Your task to perform on an android device: check the backup settings in the google photos Image 0: 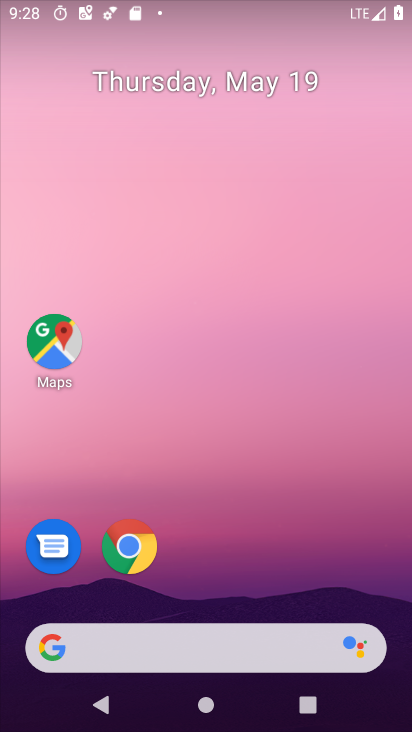
Step 0: drag from (273, 616) to (184, 219)
Your task to perform on an android device: check the backup settings in the google photos Image 1: 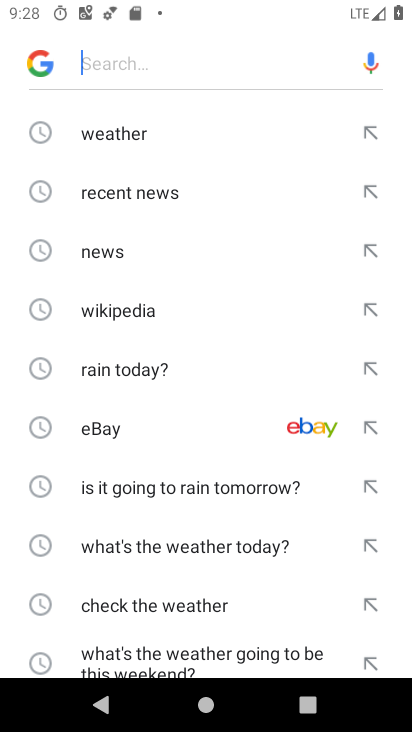
Step 1: press back button
Your task to perform on an android device: check the backup settings in the google photos Image 2: 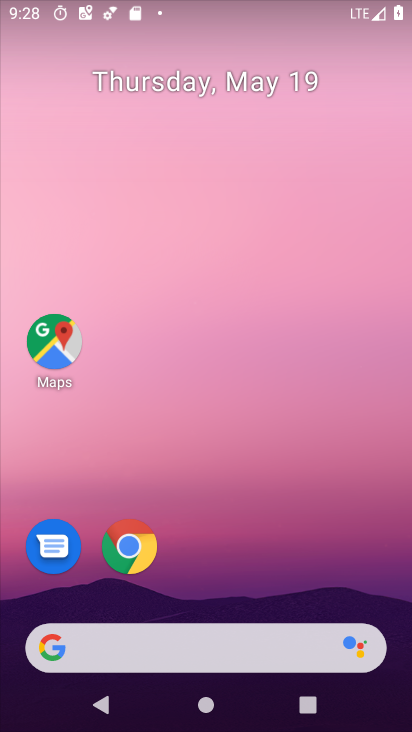
Step 2: drag from (269, 676) to (130, 89)
Your task to perform on an android device: check the backup settings in the google photos Image 3: 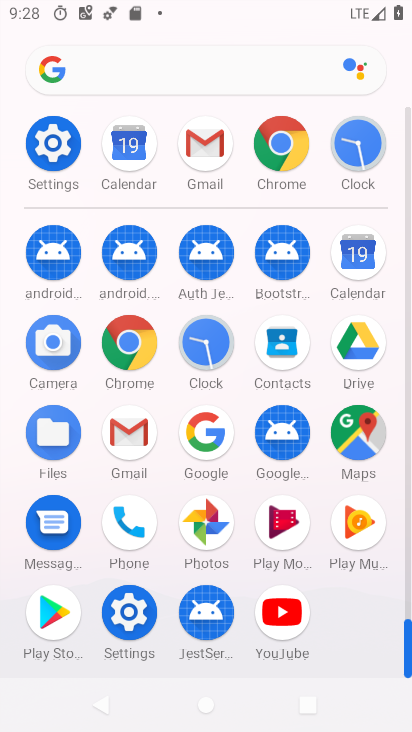
Step 3: click (211, 442)
Your task to perform on an android device: check the backup settings in the google photos Image 4: 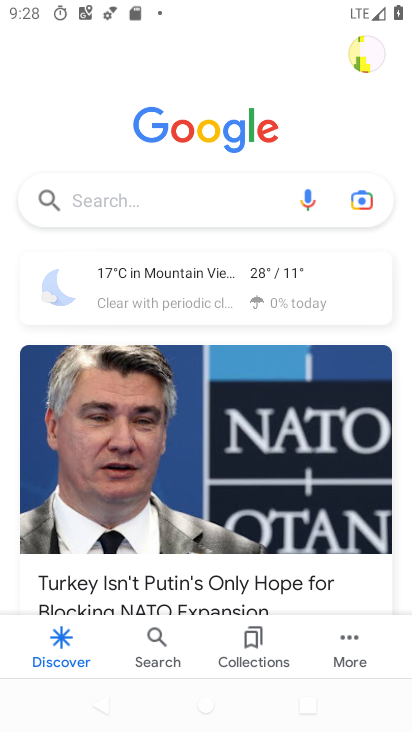
Step 4: press back button
Your task to perform on an android device: check the backup settings in the google photos Image 5: 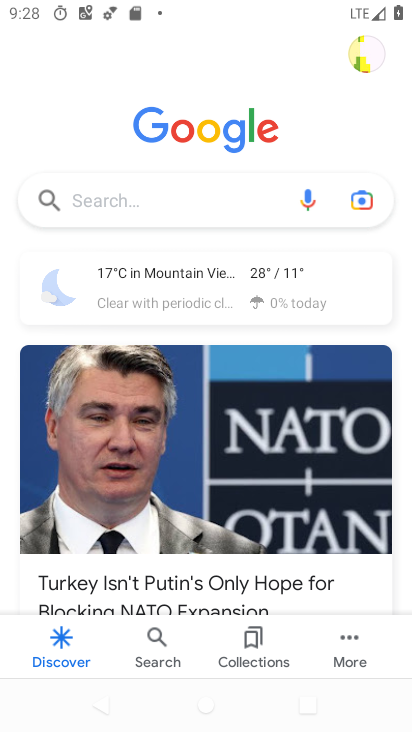
Step 5: press back button
Your task to perform on an android device: check the backup settings in the google photos Image 6: 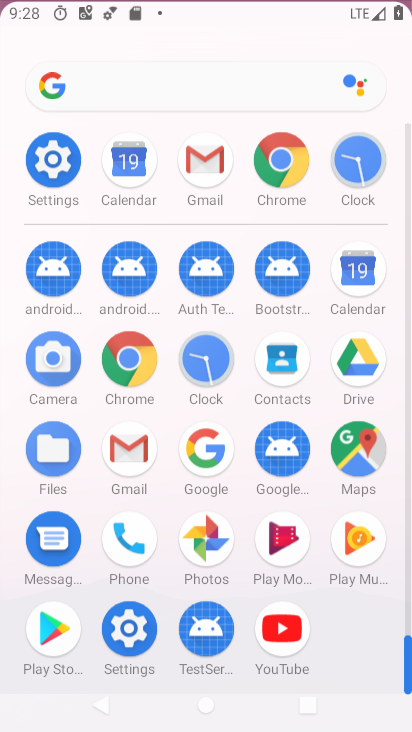
Step 6: press back button
Your task to perform on an android device: check the backup settings in the google photos Image 7: 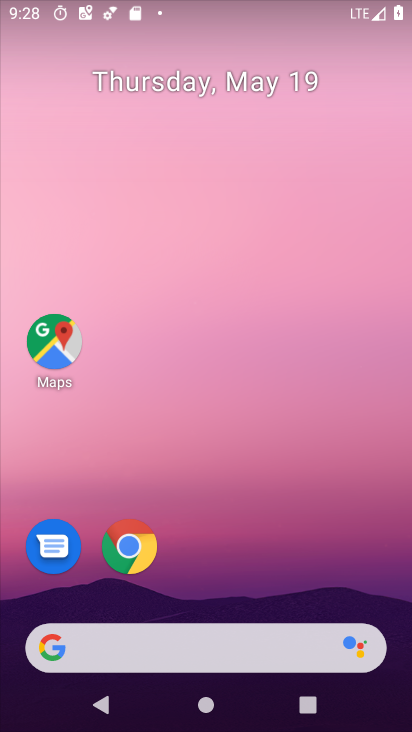
Step 7: drag from (332, 589) to (249, 138)
Your task to perform on an android device: check the backup settings in the google photos Image 8: 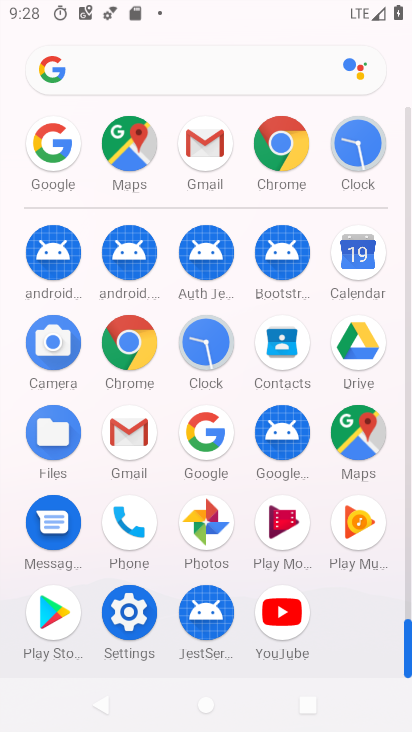
Step 8: click (204, 513)
Your task to perform on an android device: check the backup settings in the google photos Image 9: 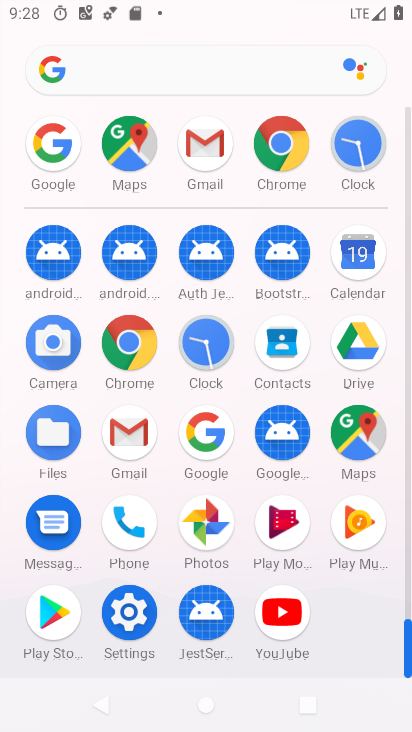
Step 9: click (205, 513)
Your task to perform on an android device: check the backup settings in the google photos Image 10: 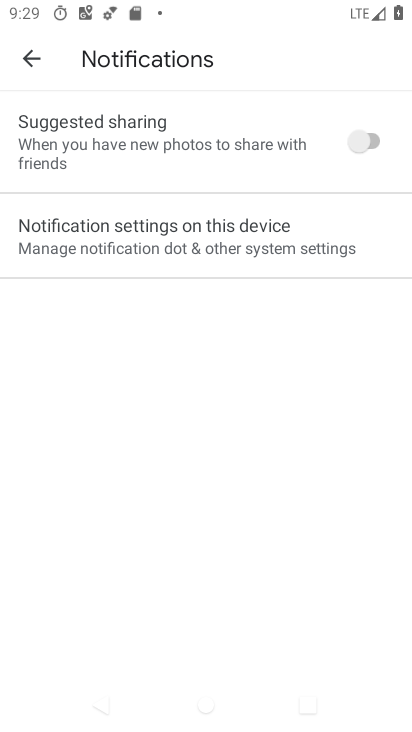
Step 10: click (127, 243)
Your task to perform on an android device: check the backup settings in the google photos Image 11: 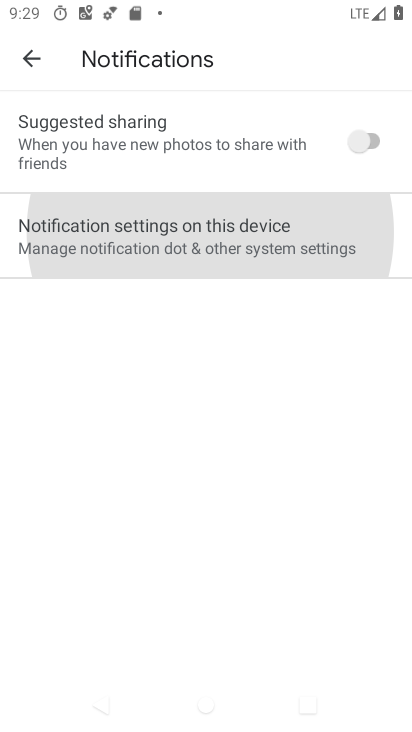
Step 11: click (127, 243)
Your task to perform on an android device: check the backup settings in the google photos Image 12: 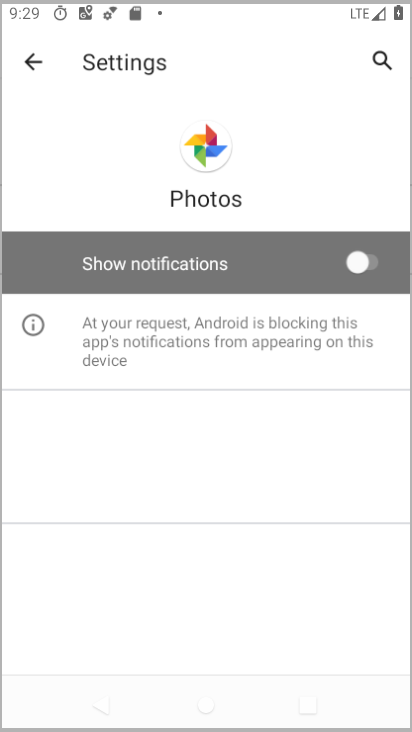
Step 12: click (127, 243)
Your task to perform on an android device: check the backup settings in the google photos Image 13: 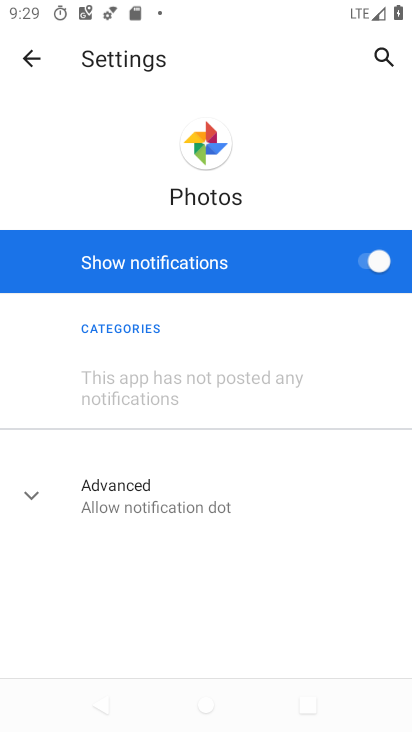
Step 13: click (32, 67)
Your task to perform on an android device: check the backup settings in the google photos Image 14: 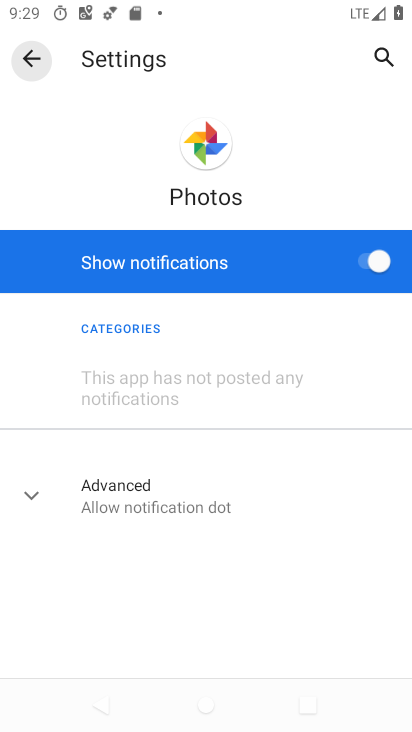
Step 14: click (32, 67)
Your task to perform on an android device: check the backup settings in the google photos Image 15: 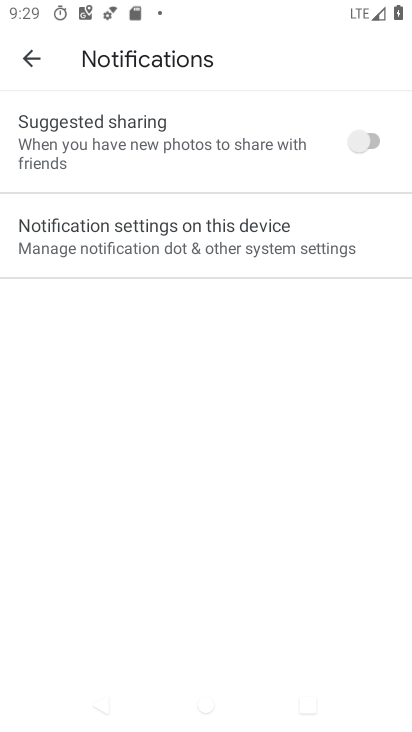
Step 15: click (32, 67)
Your task to perform on an android device: check the backup settings in the google photos Image 16: 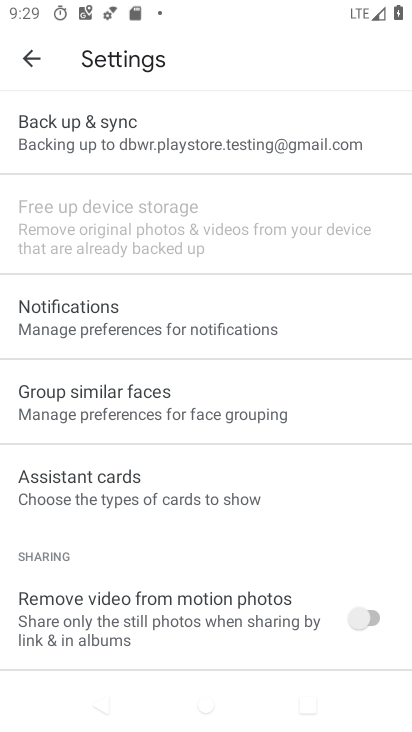
Step 16: click (118, 133)
Your task to perform on an android device: check the backup settings in the google photos Image 17: 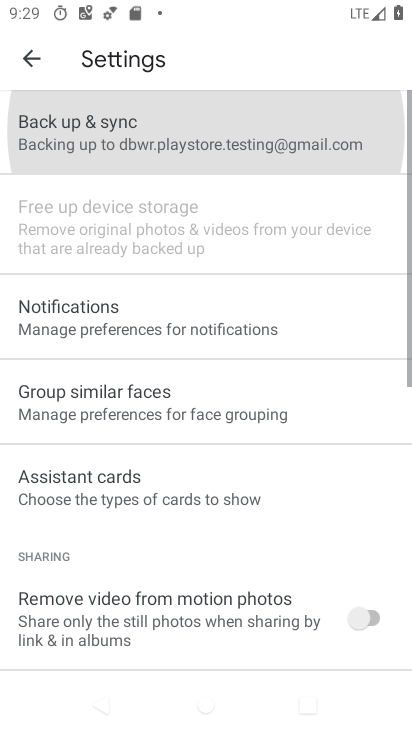
Step 17: click (119, 132)
Your task to perform on an android device: check the backup settings in the google photos Image 18: 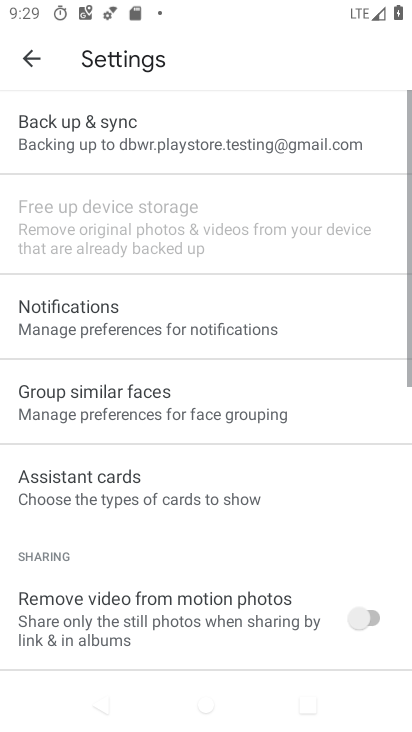
Step 18: click (120, 131)
Your task to perform on an android device: check the backup settings in the google photos Image 19: 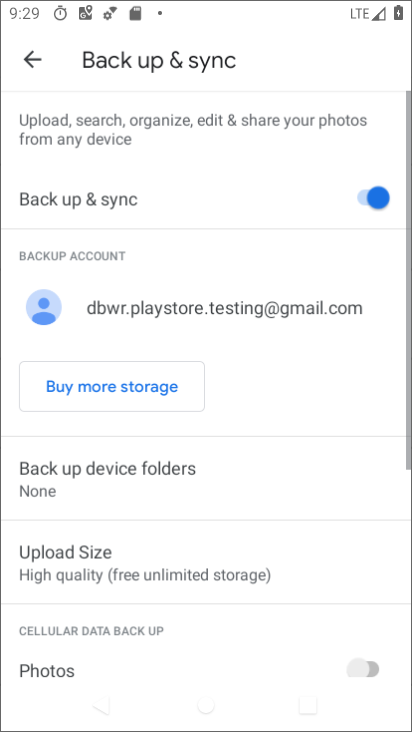
Step 19: click (120, 131)
Your task to perform on an android device: check the backup settings in the google photos Image 20: 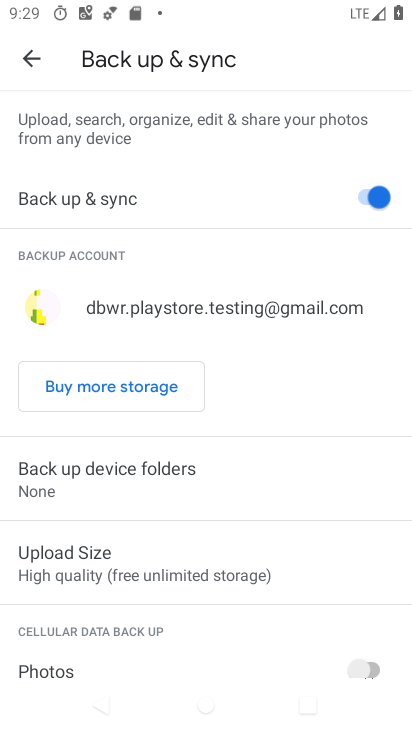
Step 20: click (65, 272)
Your task to perform on an android device: check the backup settings in the google photos Image 21: 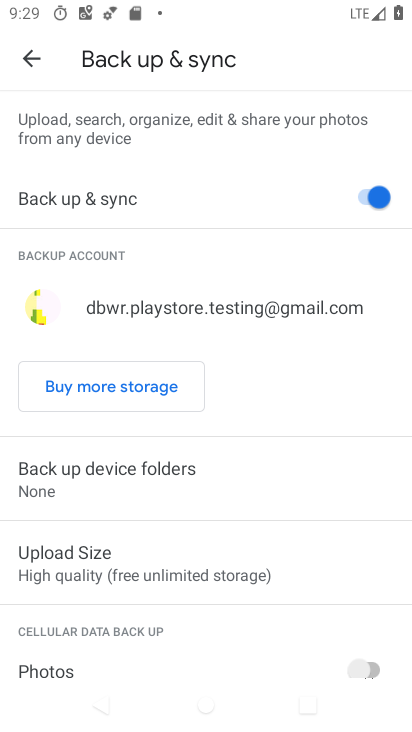
Step 21: click (65, 272)
Your task to perform on an android device: check the backup settings in the google photos Image 22: 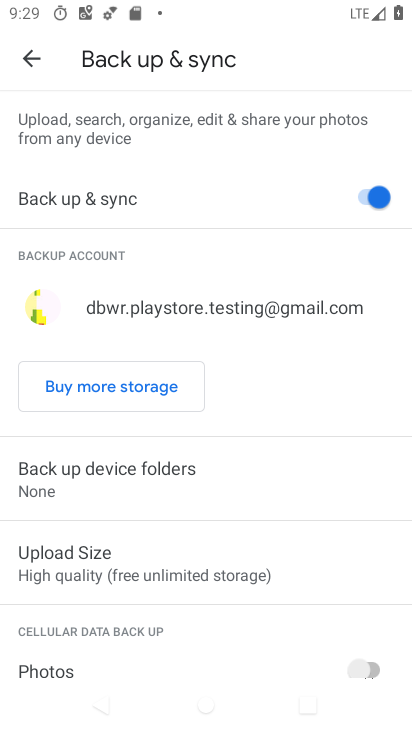
Step 22: click (65, 272)
Your task to perform on an android device: check the backup settings in the google photos Image 23: 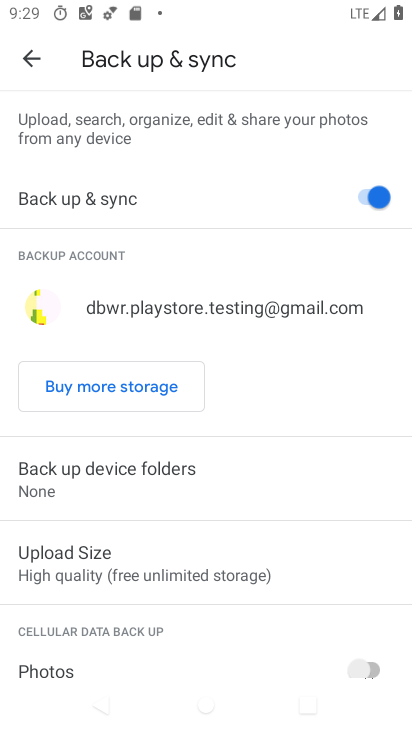
Step 23: click (65, 272)
Your task to perform on an android device: check the backup settings in the google photos Image 24: 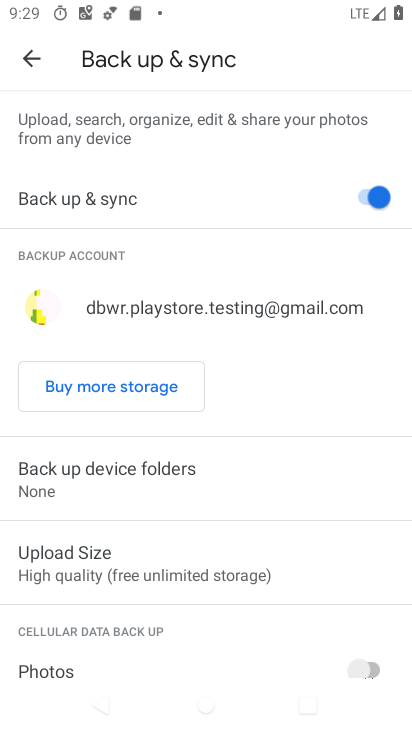
Step 24: click (65, 272)
Your task to perform on an android device: check the backup settings in the google photos Image 25: 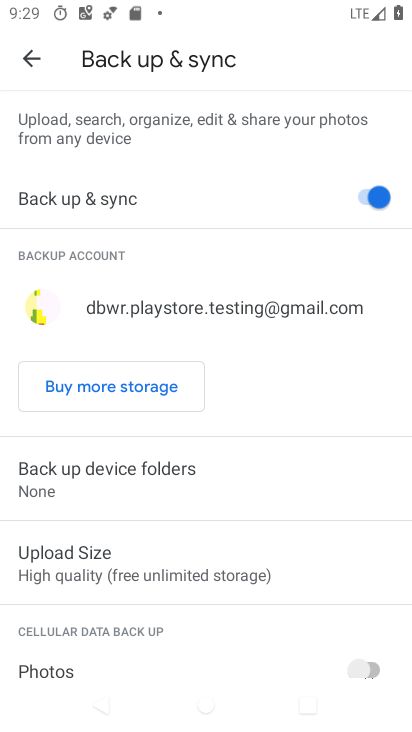
Step 25: task complete